Your task to perform on an android device: When is my next meeting? Image 0: 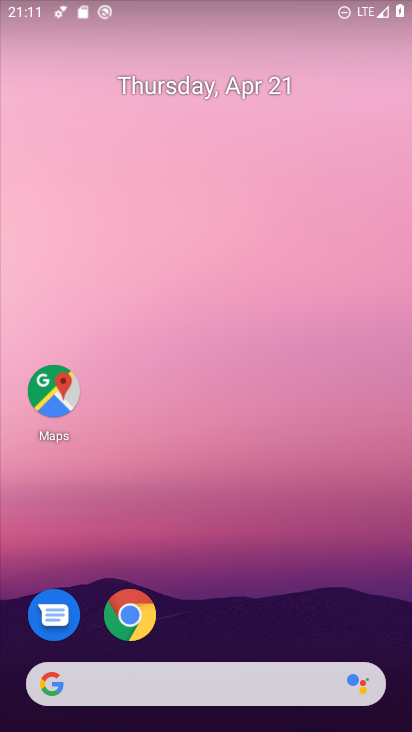
Step 0: drag from (210, 636) to (296, 72)
Your task to perform on an android device: When is my next meeting? Image 1: 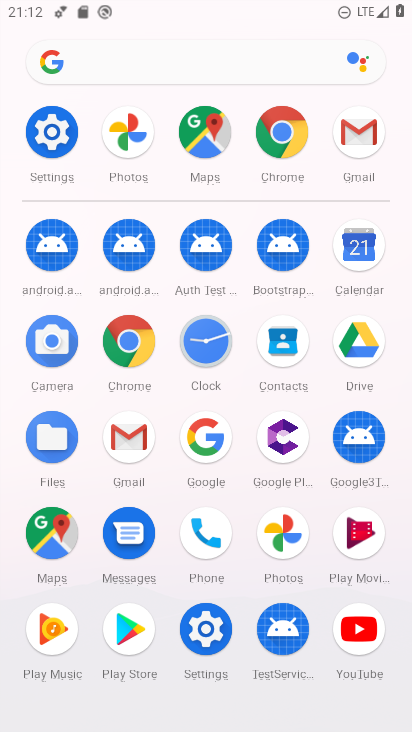
Step 1: click (361, 248)
Your task to perform on an android device: When is my next meeting? Image 2: 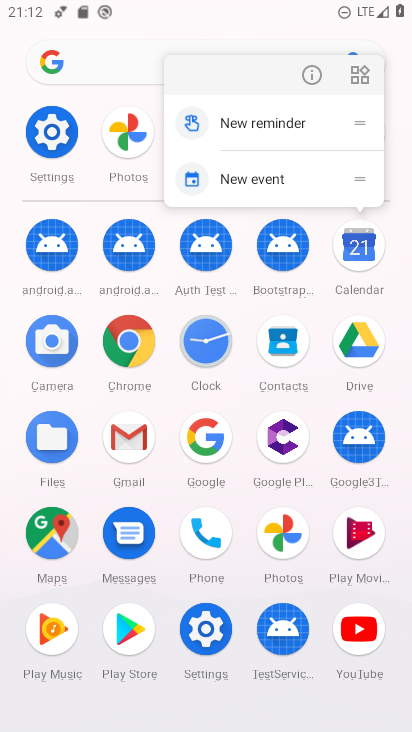
Step 2: click (309, 77)
Your task to perform on an android device: When is my next meeting? Image 3: 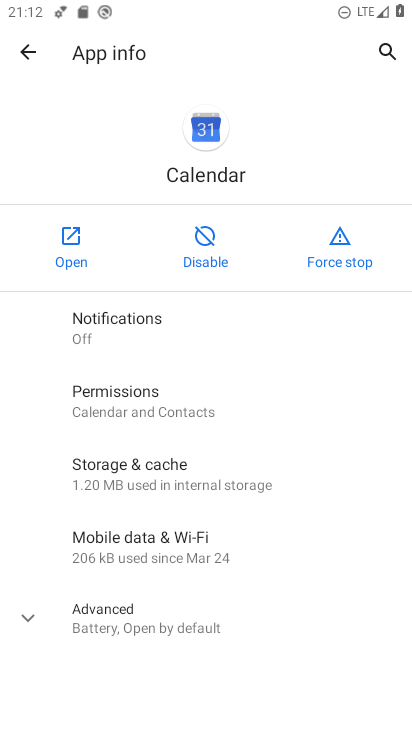
Step 3: click (71, 241)
Your task to perform on an android device: When is my next meeting? Image 4: 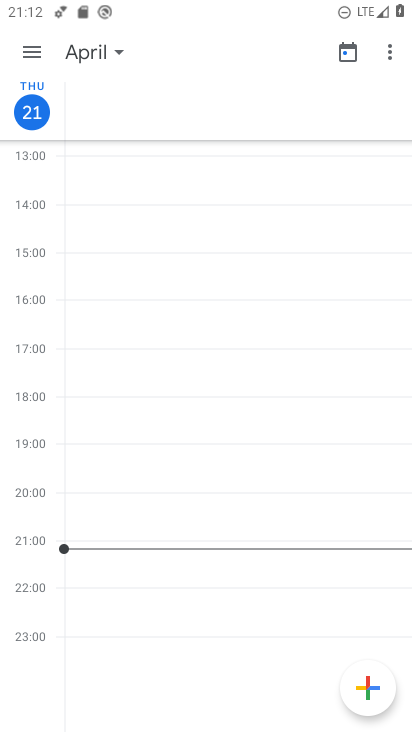
Step 4: drag from (176, 468) to (200, 204)
Your task to perform on an android device: When is my next meeting? Image 5: 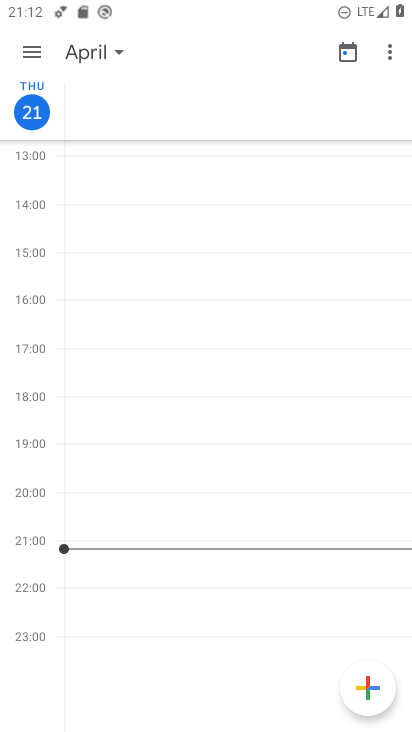
Step 5: click (85, 51)
Your task to perform on an android device: When is my next meeting? Image 6: 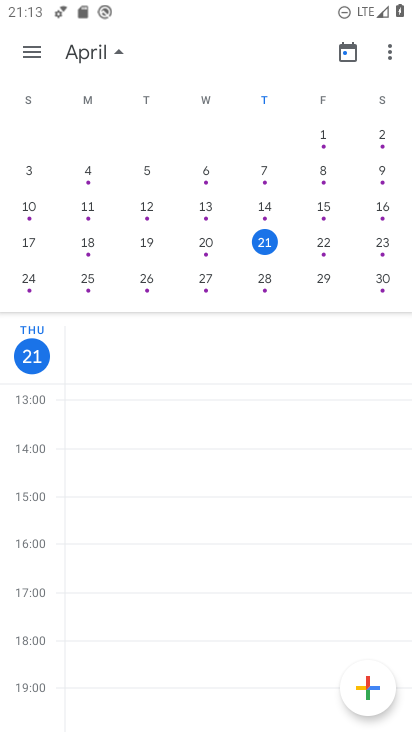
Step 6: click (259, 249)
Your task to perform on an android device: When is my next meeting? Image 7: 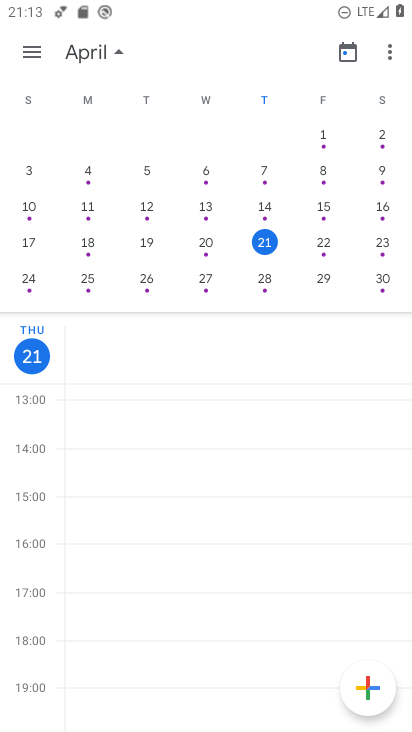
Step 7: task complete